Your task to perform on an android device: Search for vegetarian restaurants on Maps Image 0: 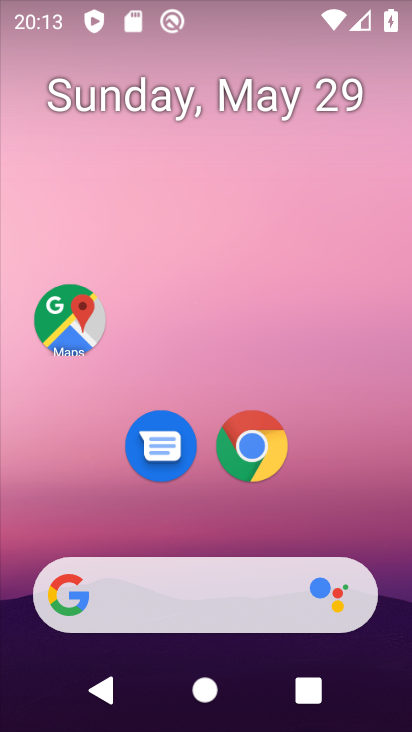
Step 0: click (78, 317)
Your task to perform on an android device: Search for vegetarian restaurants on Maps Image 1: 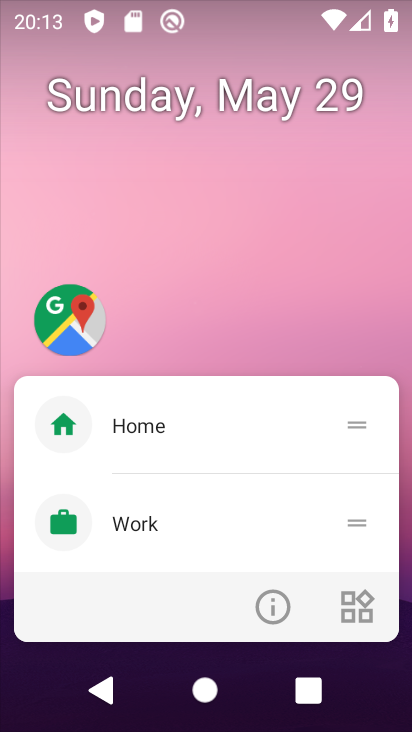
Step 1: click (71, 327)
Your task to perform on an android device: Search for vegetarian restaurants on Maps Image 2: 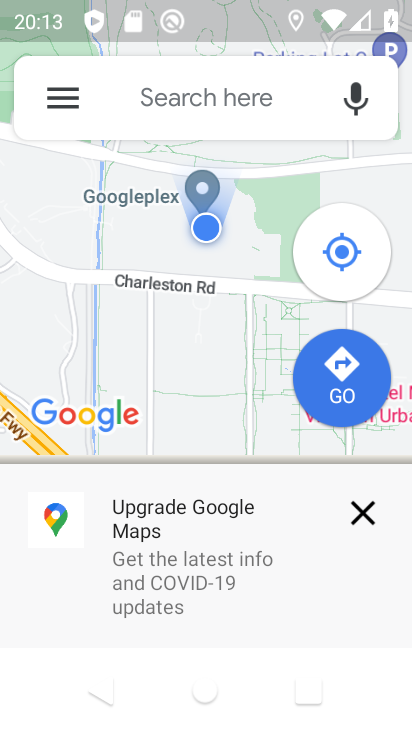
Step 2: click (229, 94)
Your task to perform on an android device: Search for vegetarian restaurants on Maps Image 3: 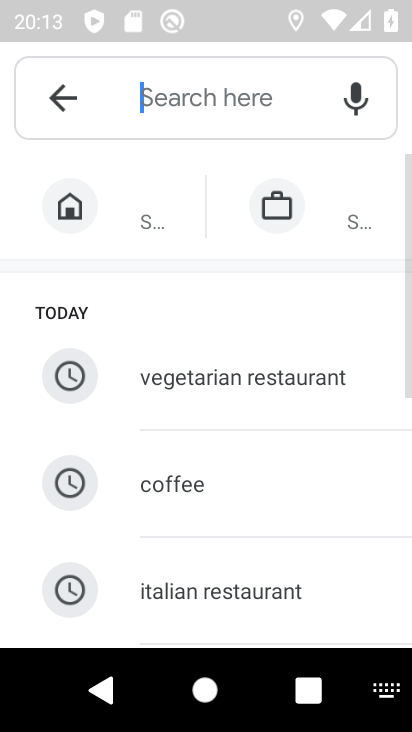
Step 3: click (229, 386)
Your task to perform on an android device: Search for vegetarian restaurants on Maps Image 4: 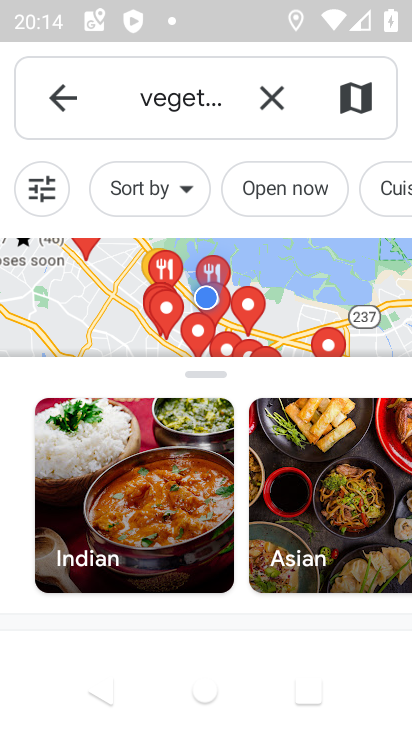
Step 4: task complete